Your task to perform on an android device: Look up the best rated pressure washer on Home Depot. Image 0: 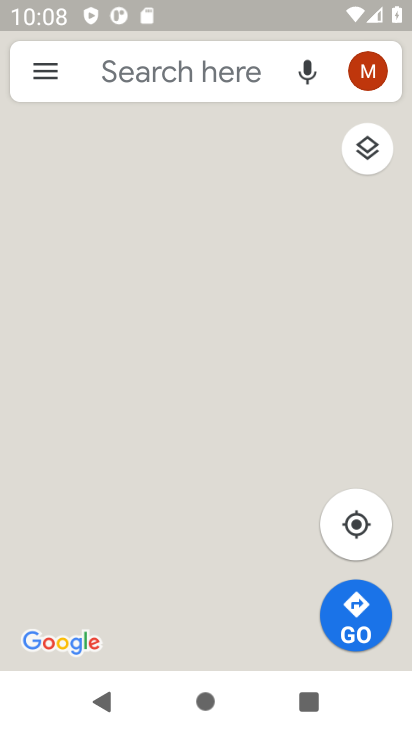
Step 0: press home button
Your task to perform on an android device: Look up the best rated pressure washer on Home Depot. Image 1: 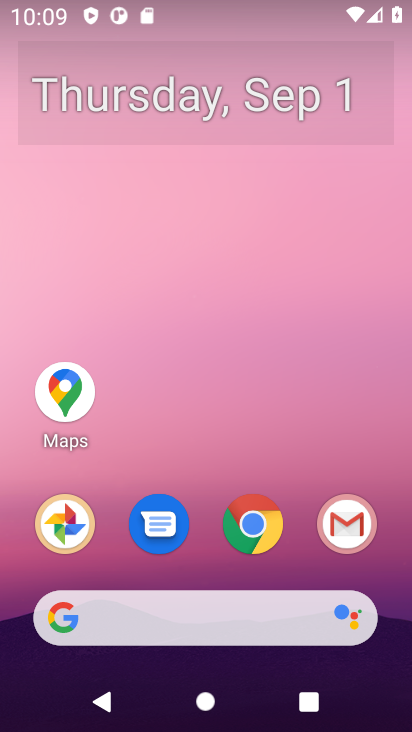
Step 1: drag from (399, 594) to (388, 134)
Your task to perform on an android device: Look up the best rated pressure washer on Home Depot. Image 2: 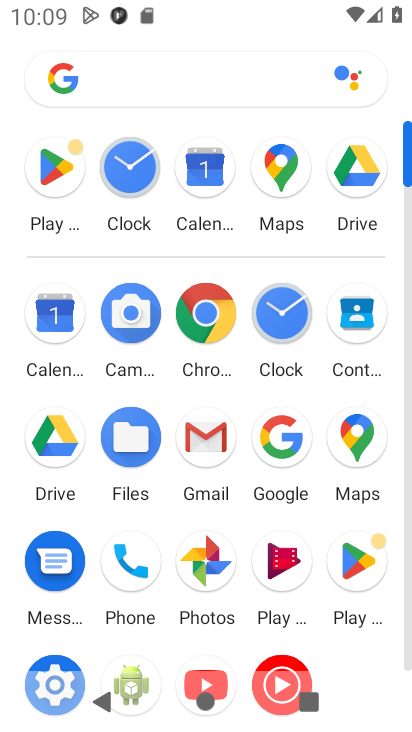
Step 2: click (200, 313)
Your task to perform on an android device: Look up the best rated pressure washer on Home Depot. Image 3: 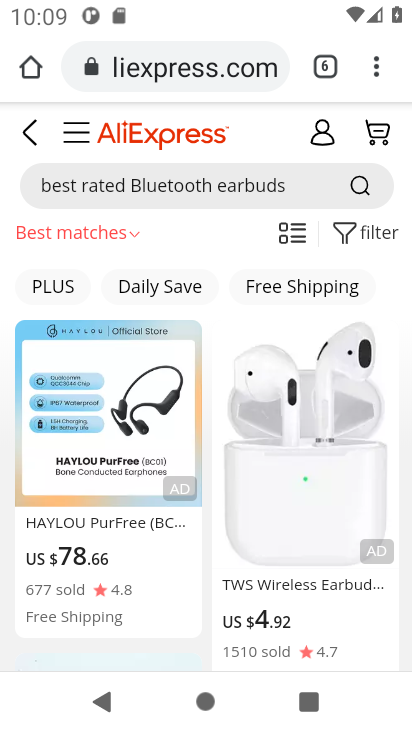
Step 3: click (239, 74)
Your task to perform on an android device: Look up the best rated pressure washer on Home Depot. Image 4: 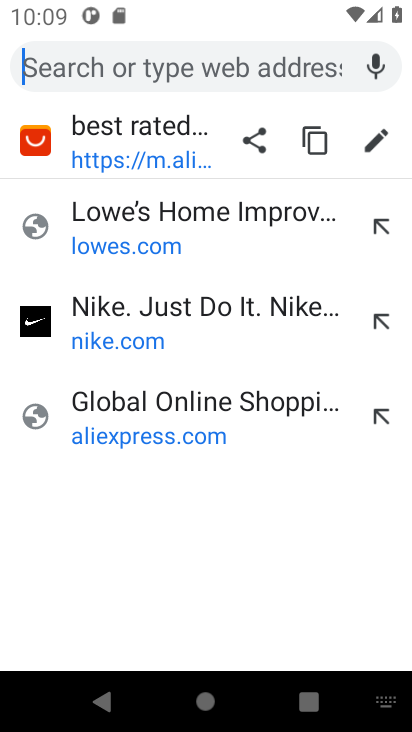
Step 4: press enter
Your task to perform on an android device: Look up the best rated pressure washer on Home Depot. Image 5: 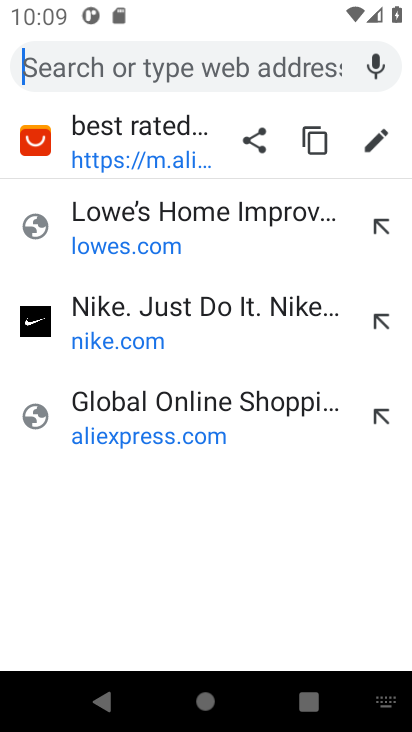
Step 5: type "home depot"
Your task to perform on an android device: Look up the best rated pressure washer on Home Depot. Image 6: 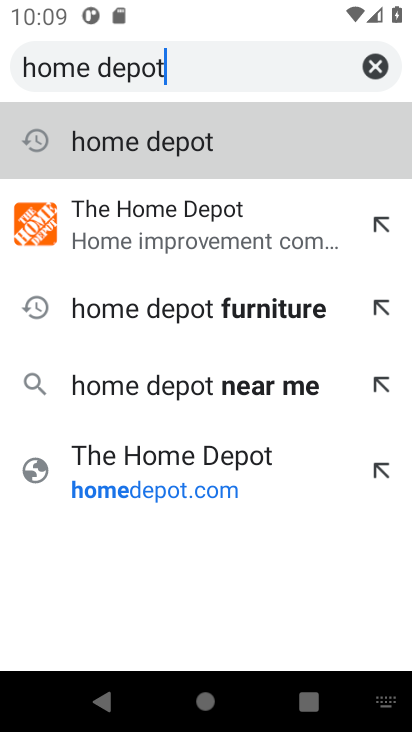
Step 6: click (231, 137)
Your task to perform on an android device: Look up the best rated pressure washer on Home Depot. Image 7: 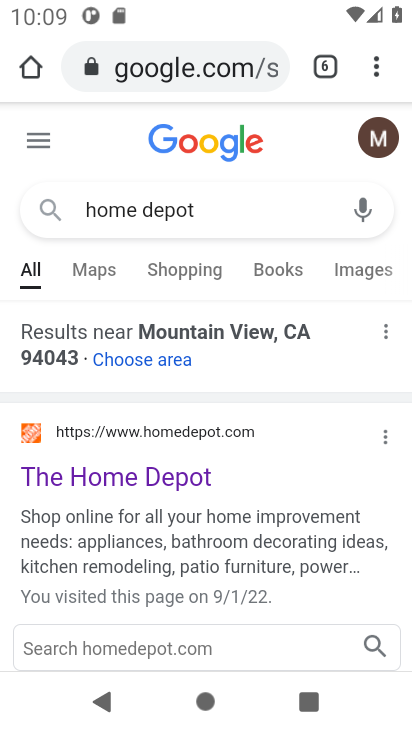
Step 7: click (144, 477)
Your task to perform on an android device: Look up the best rated pressure washer on Home Depot. Image 8: 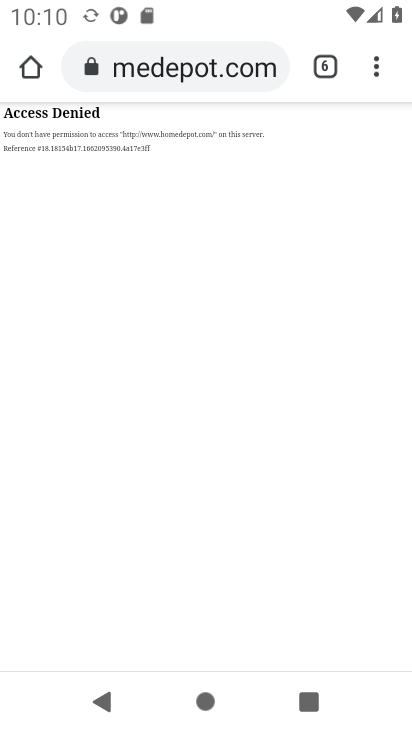
Step 8: task complete